Your task to perform on an android device: turn off picture-in-picture Image 0: 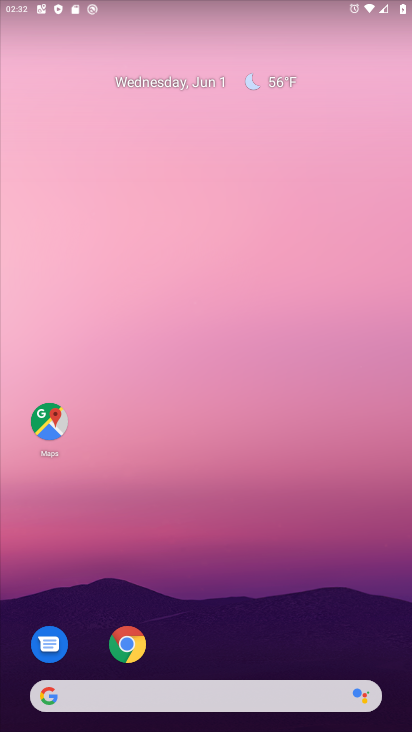
Step 0: click (228, 668)
Your task to perform on an android device: turn off picture-in-picture Image 1: 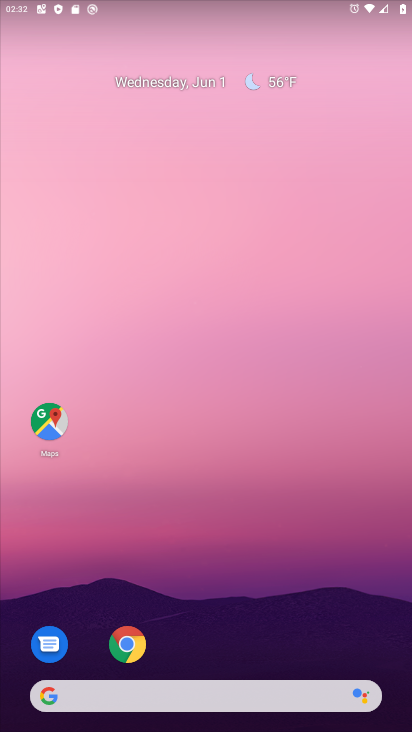
Step 1: click (120, 640)
Your task to perform on an android device: turn off picture-in-picture Image 2: 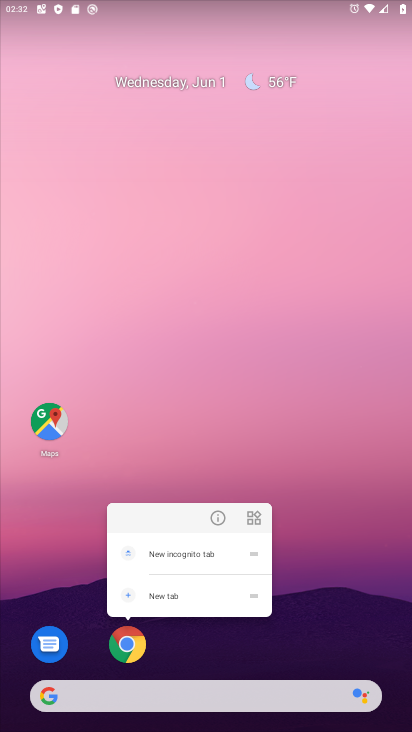
Step 2: click (227, 516)
Your task to perform on an android device: turn off picture-in-picture Image 3: 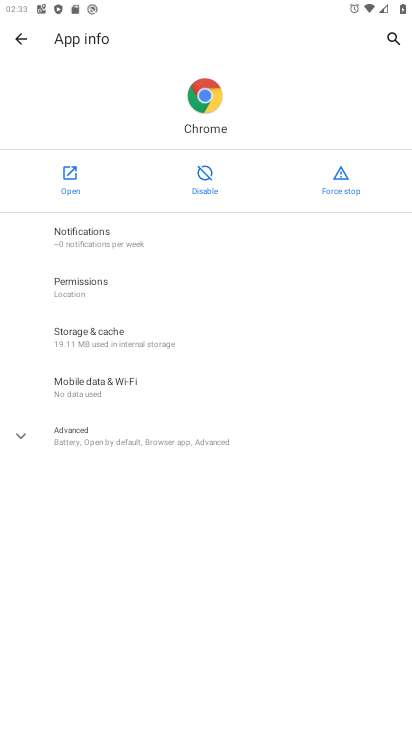
Step 3: task complete